Your task to perform on an android device: turn on location history Image 0: 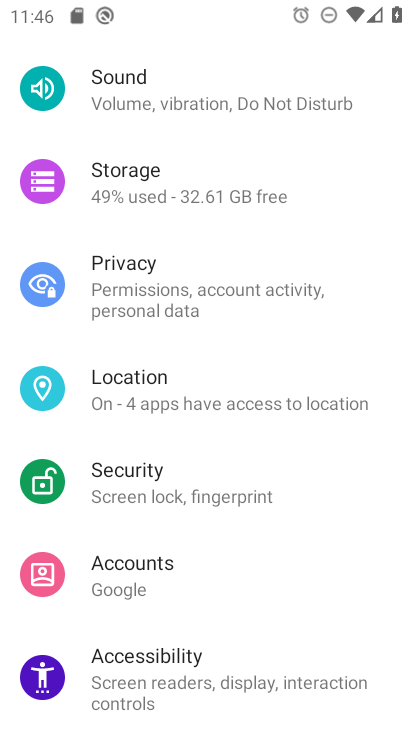
Step 0: click (314, 390)
Your task to perform on an android device: turn on location history Image 1: 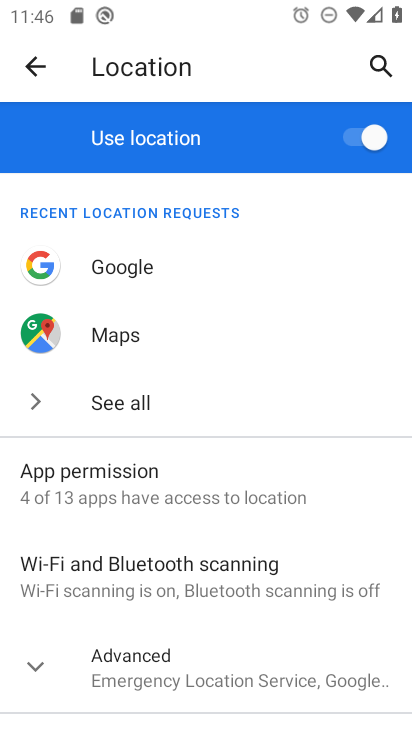
Step 1: click (42, 669)
Your task to perform on an android device: turn on location history Image 2: 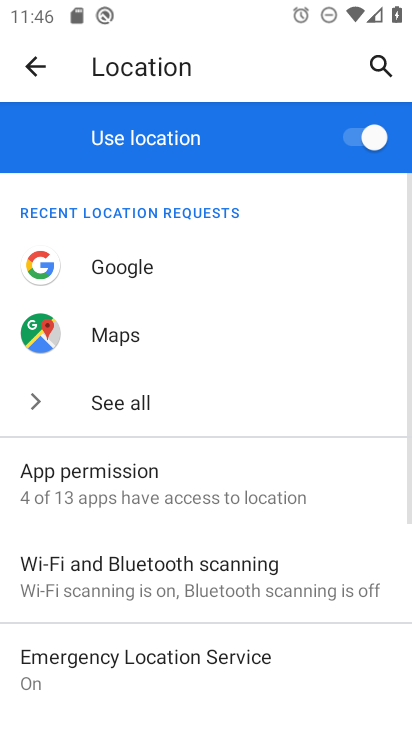
Step 2: task complete